Your task to perform on an android device: change alarm snooze length Image 0: 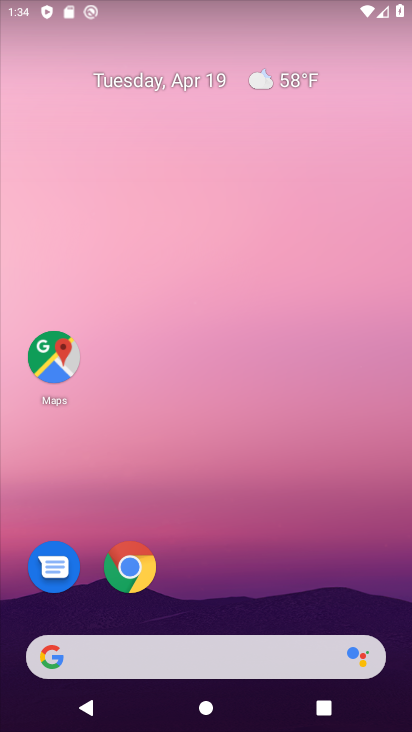
Step 0: press home button
Your task to perform on an android device: change alarm snooze length Image 1: 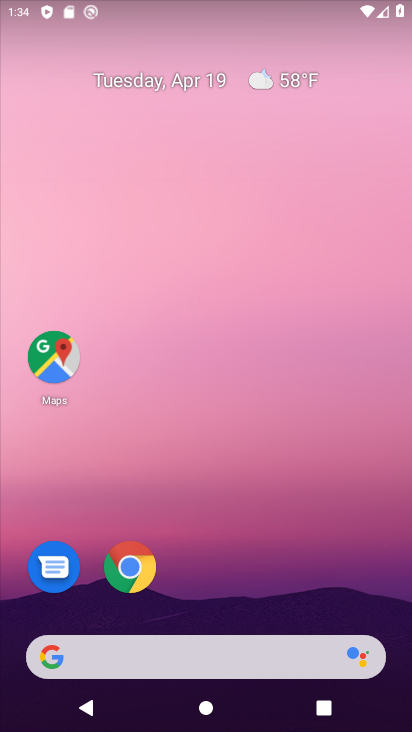
Step 1: drag from (256, 572) to (264, 268)
Your task to perform on an android device: change alarm snooze length Image 2: 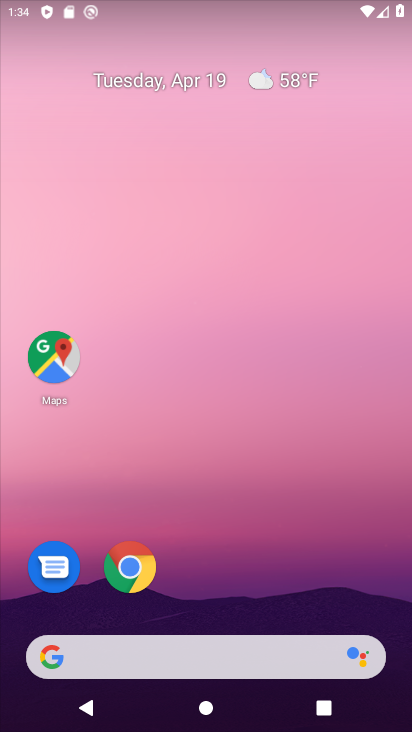
Step 2: drag from (300, 581) to (291, 197)
Your task to perform on an android device: change alarm snooze length Image 3: 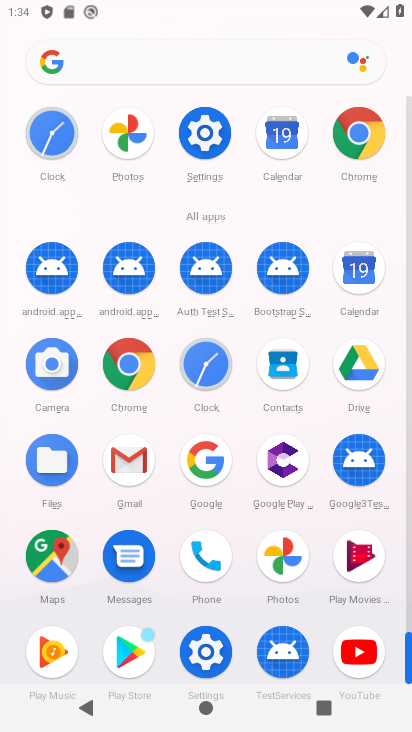
Step 3: click (208, 386)
Your task to perform on an android device: change alarm snooze length Image 4: 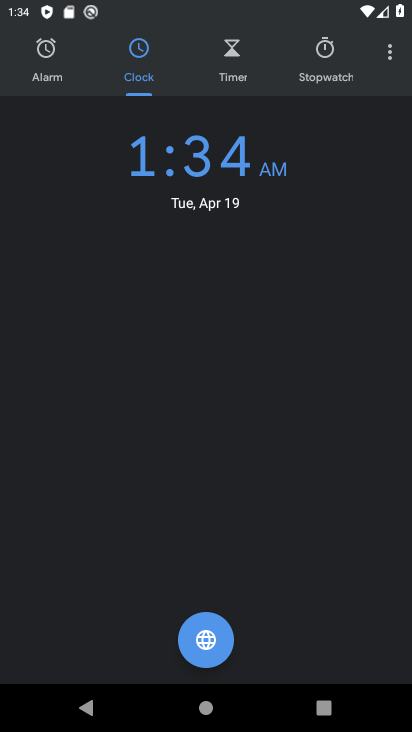
Step 4: click (395, 60)
Your task to perform on an android device: change alarm snooze length Image 5: 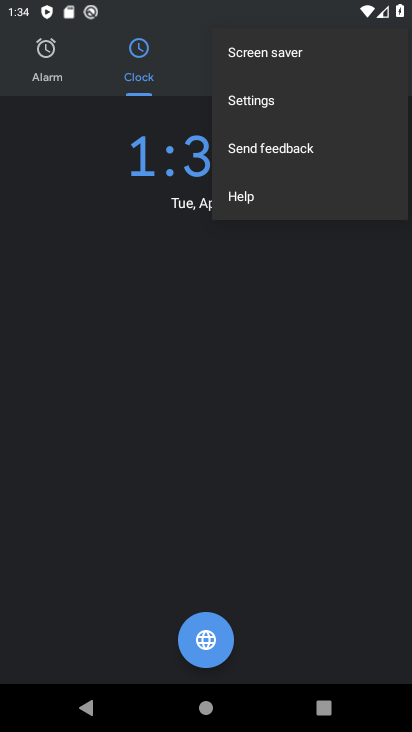
Step 5: click (288, 104)
Your task to perform on an android device: change alarm snooze length Image 6: 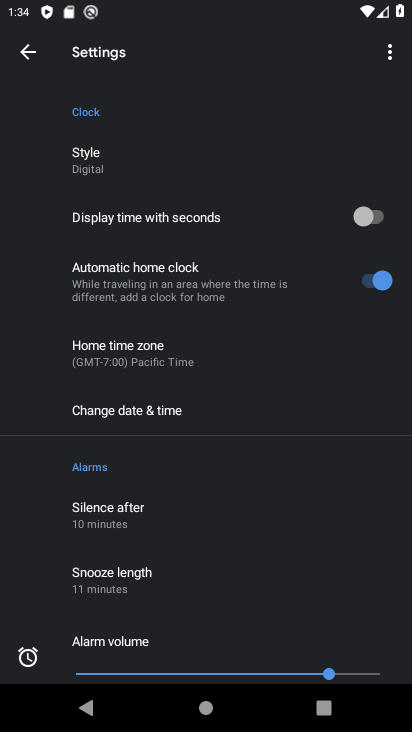
Step 6: click (157, 583)
Your task to perform on an android device: change alarm snooze length Image 7: 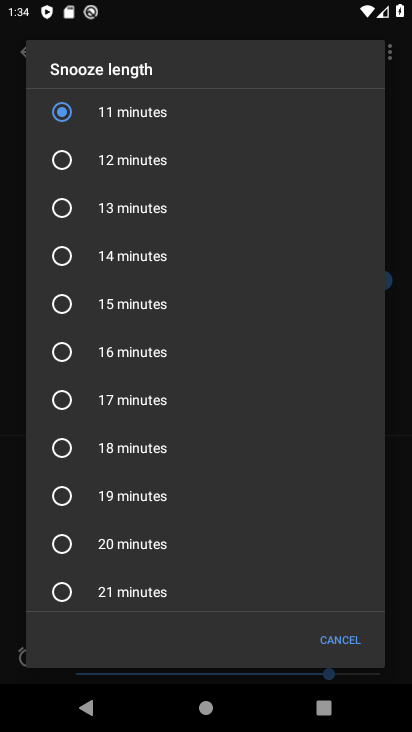
Step 7: click (121, 205)
Your task to perform on an android device: change alarm snooze length Image 8: 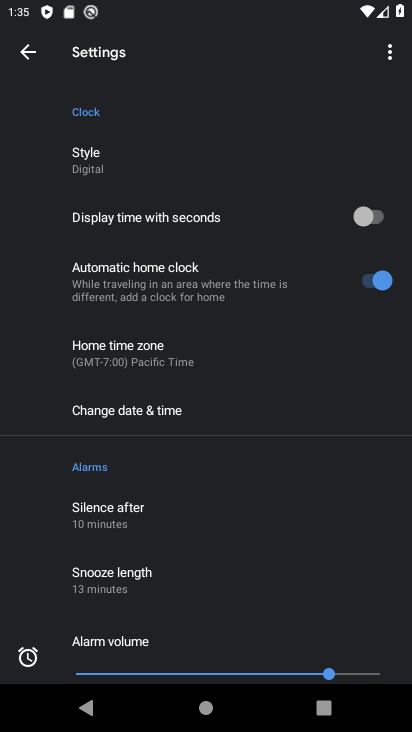
Step 8: click (148, 588)
Your task to perform on an android device: change alarm snooze length Image 9: 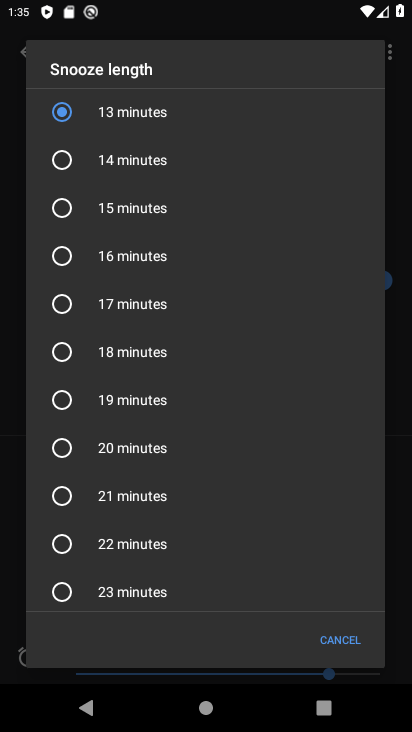
Step 9: click (122, 165)
Your task to perform on an android device: change alarm snooze length Image 10: 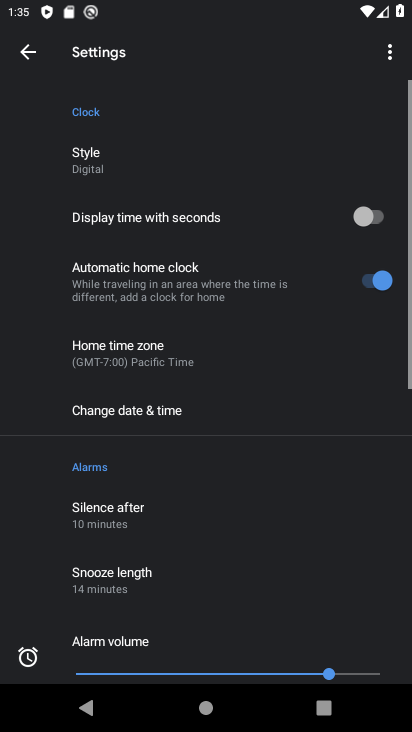
Step 10: task complete